Your task to perform on an android device: toggle javascript in the chrome app Image 0: 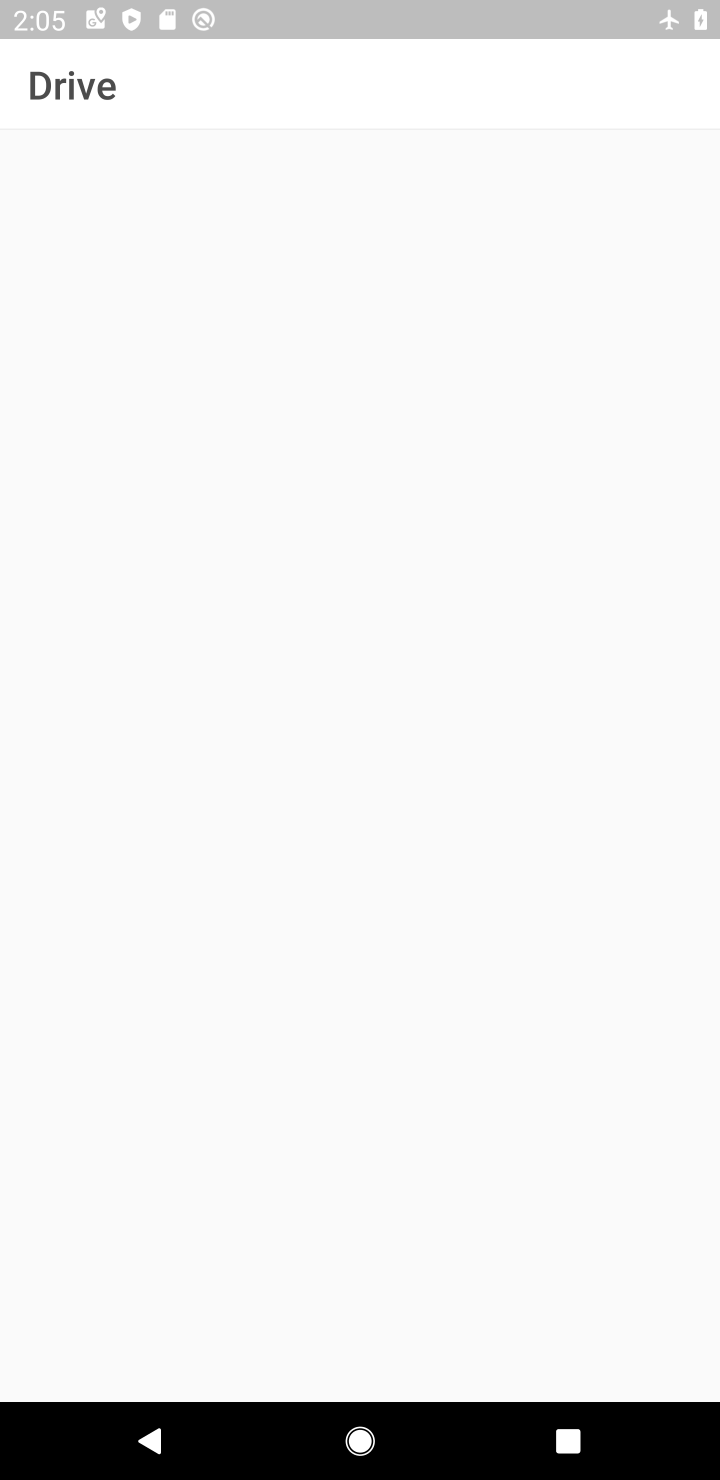
Step 0: press home button
Your task to perform on an android device: toggle javascript in the chrome app Image 1: 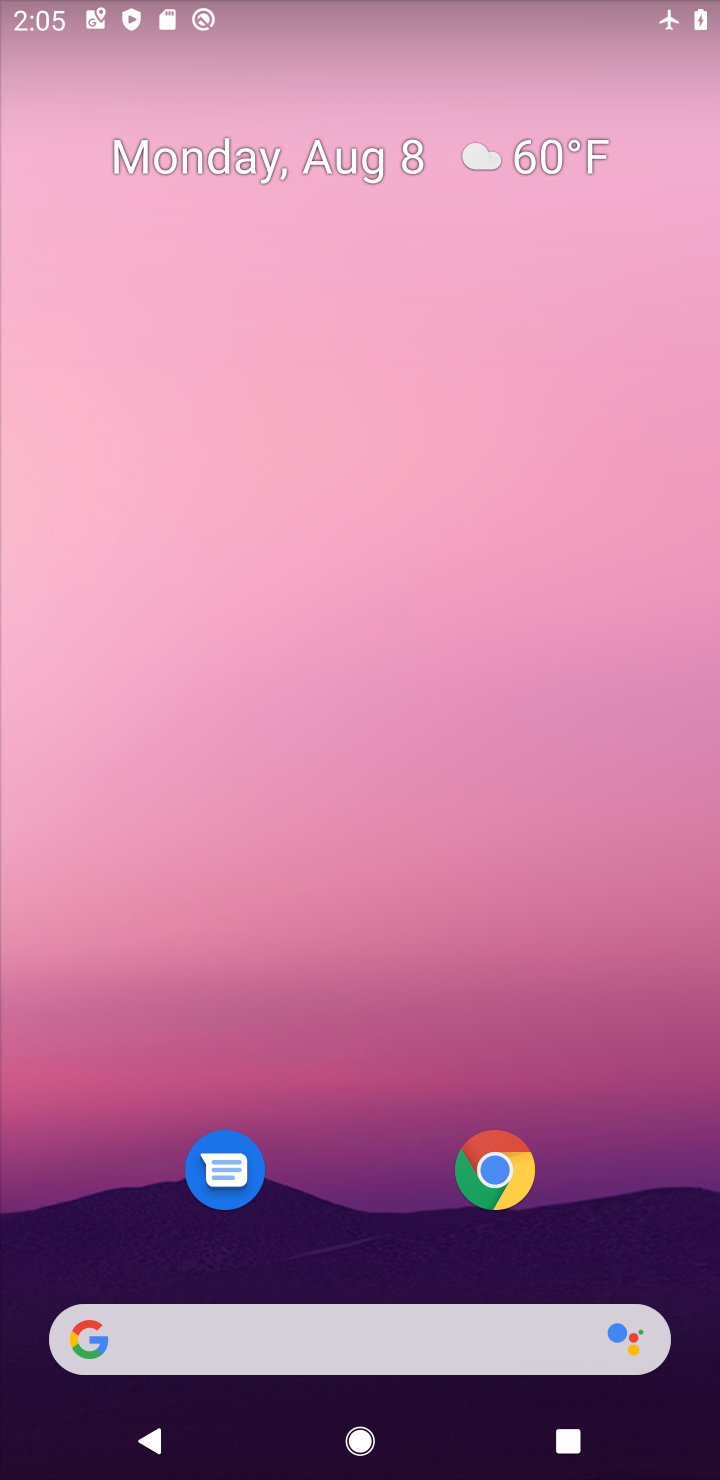
Step 1: click (511, 1148)
Your task to perform on an android device: toggle javascript in the chrome app Image 2: 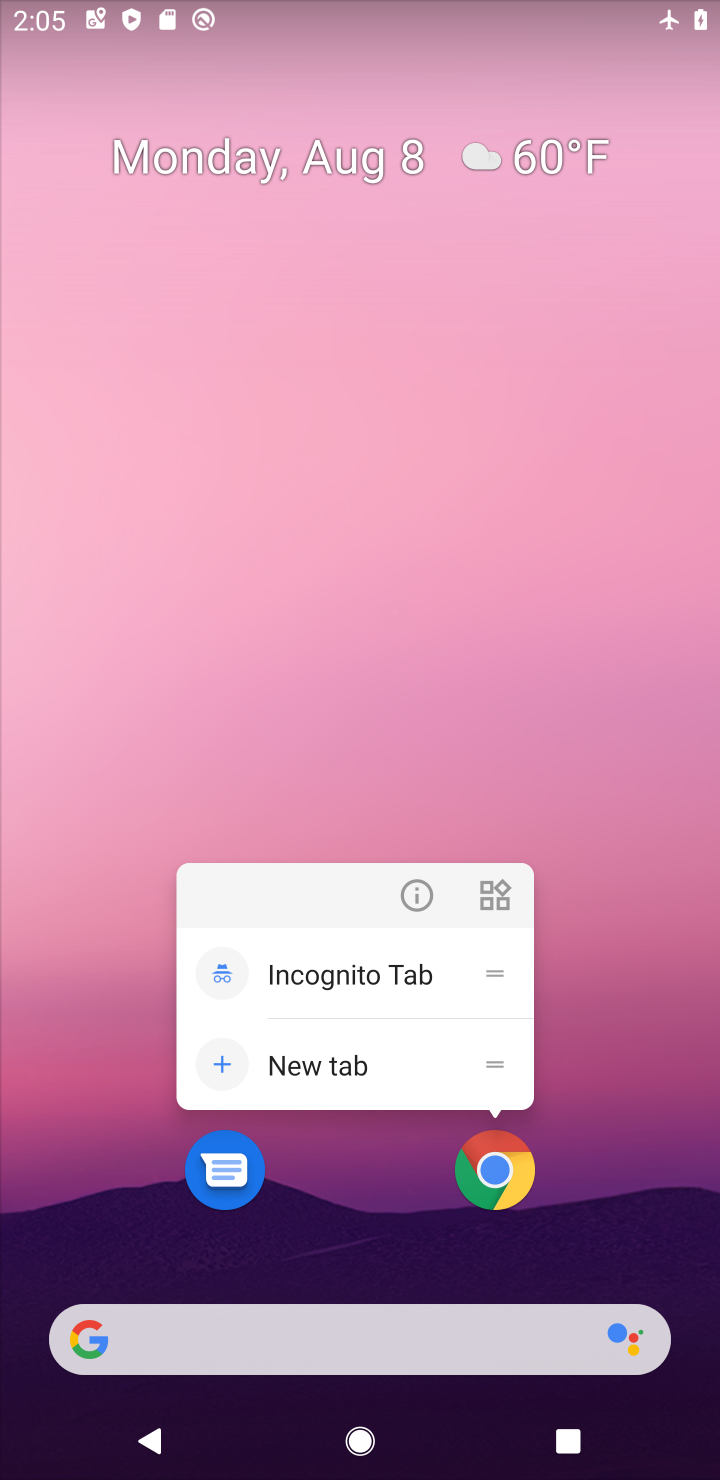
Step 2: click (506, 1156)
Your task to perform on an android device: toggle javascript in the chrome app Image 3: 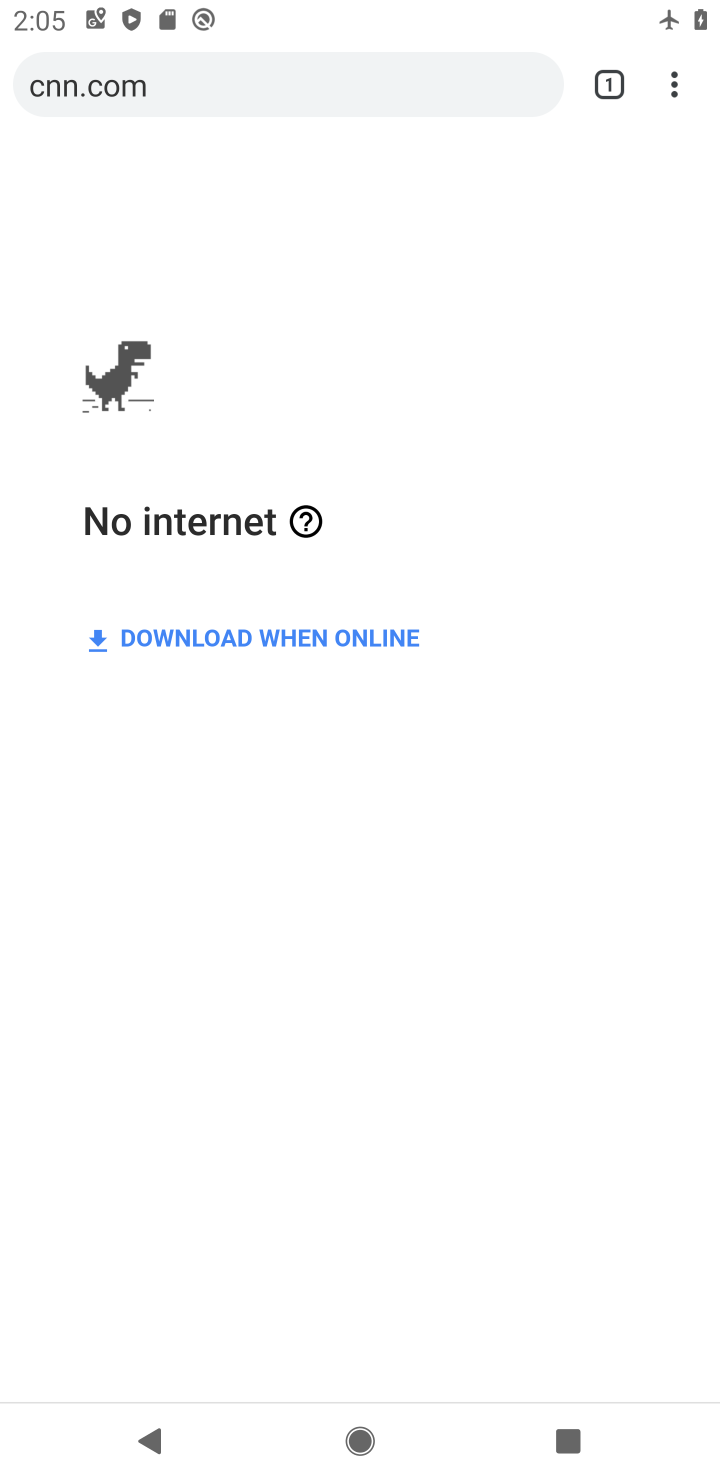
Step 3: click (669, 86)
Your task to perform on an android device: toggle javascript in the chrome app Image 4: 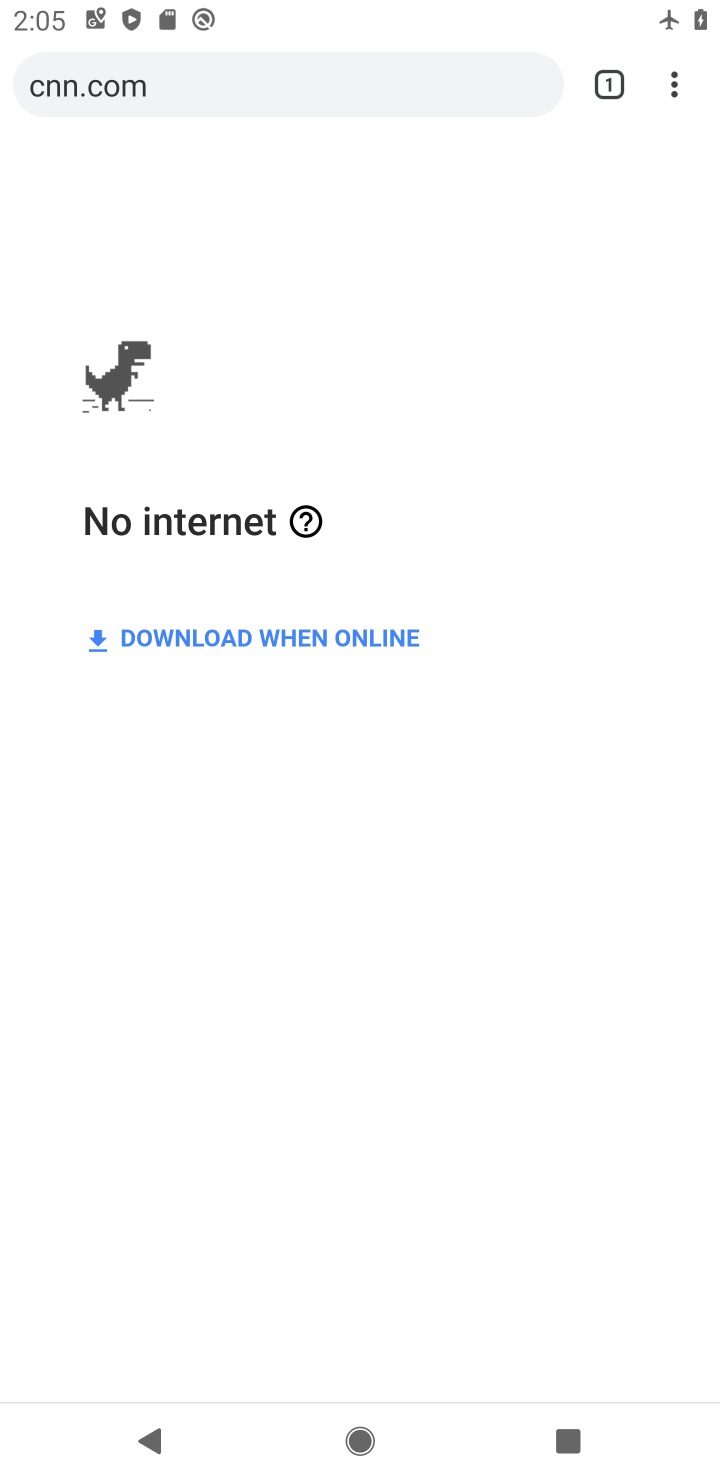
Step 4: click (680, 68)
Your task to perform on an android device: toggle javascript in the chrome app Image 5: 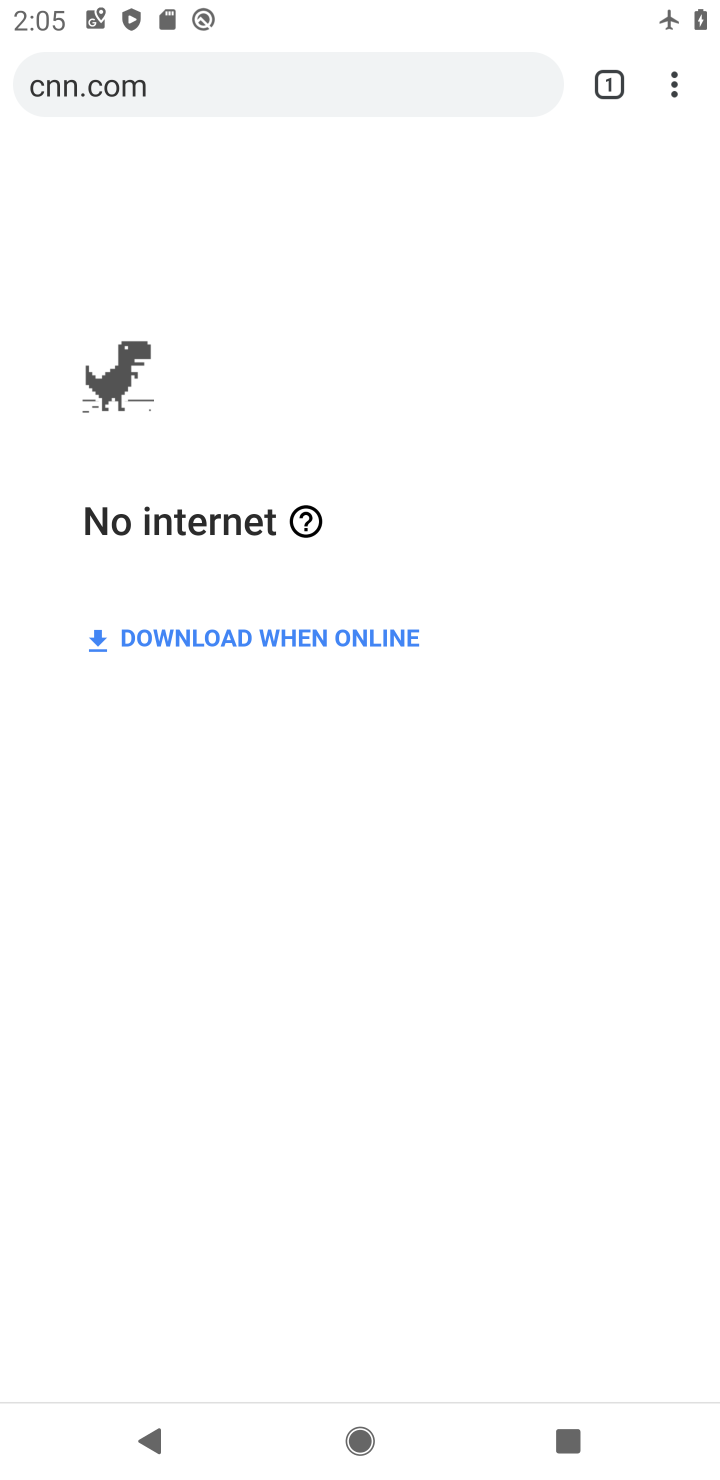
Step 5: click (673, 103)
Your task to perform on an android device: toggle javascript in the chrome app Image 6: 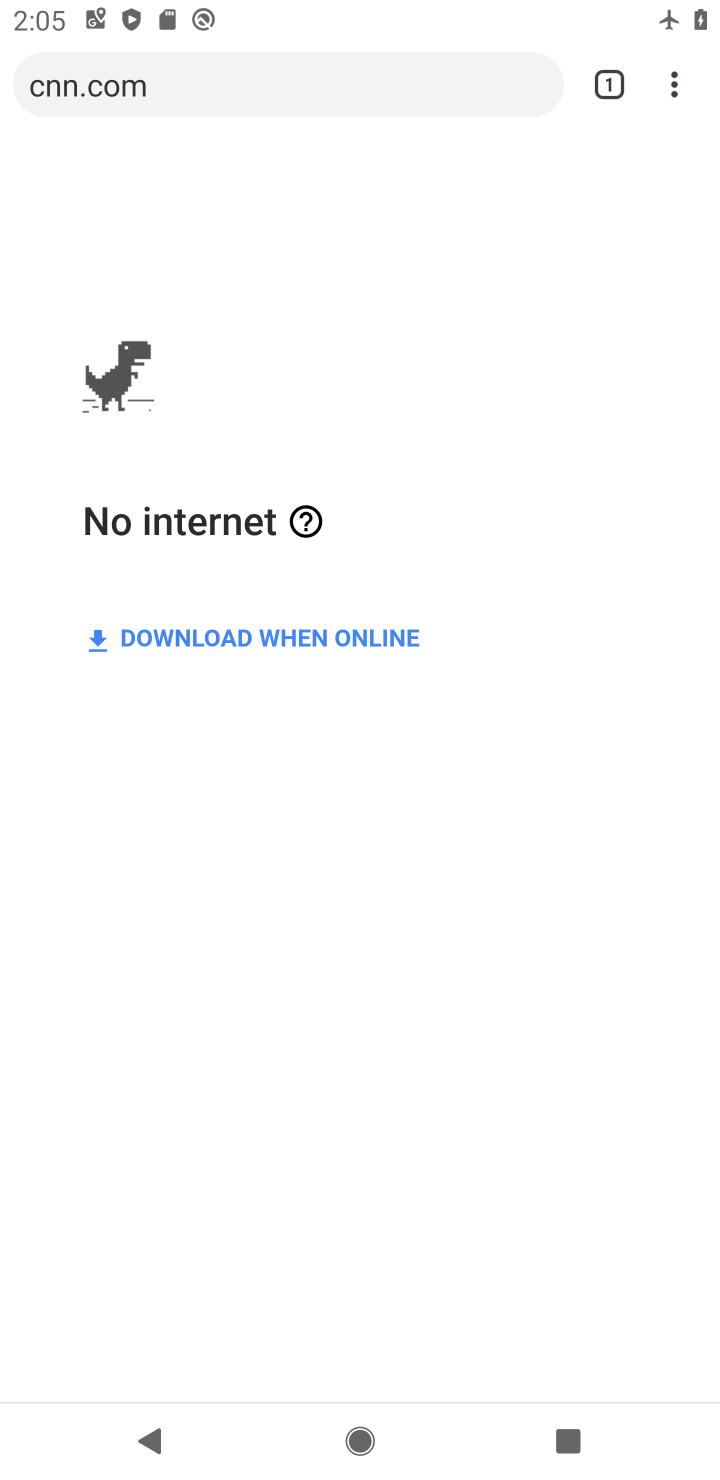
Step 6: drag from (673, 103) to (382, 961)
Your task to perform on an android device: toggle javascript in the chrome app Image 7: 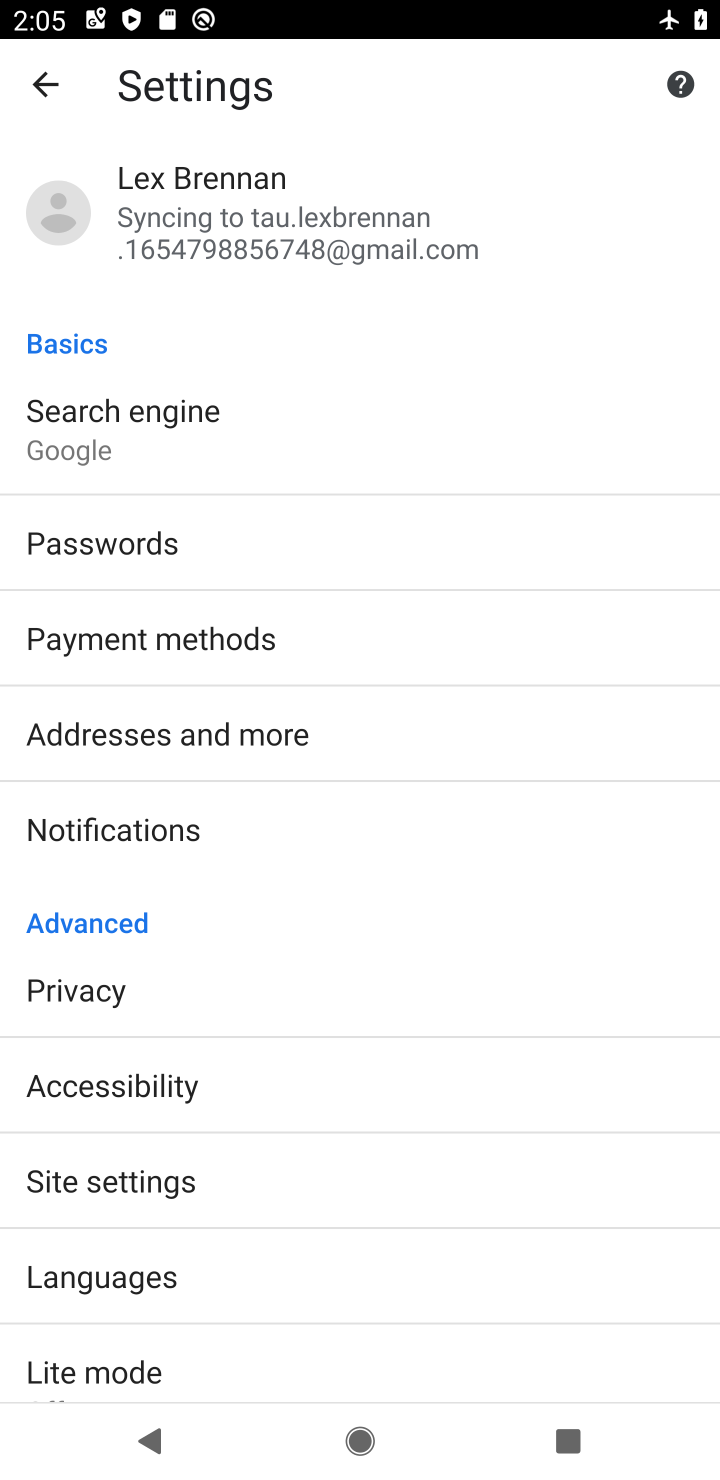
Step 7: click (140, 1188)
Your task to perform on an android device: toggle javascript in the chrome app Image 8: 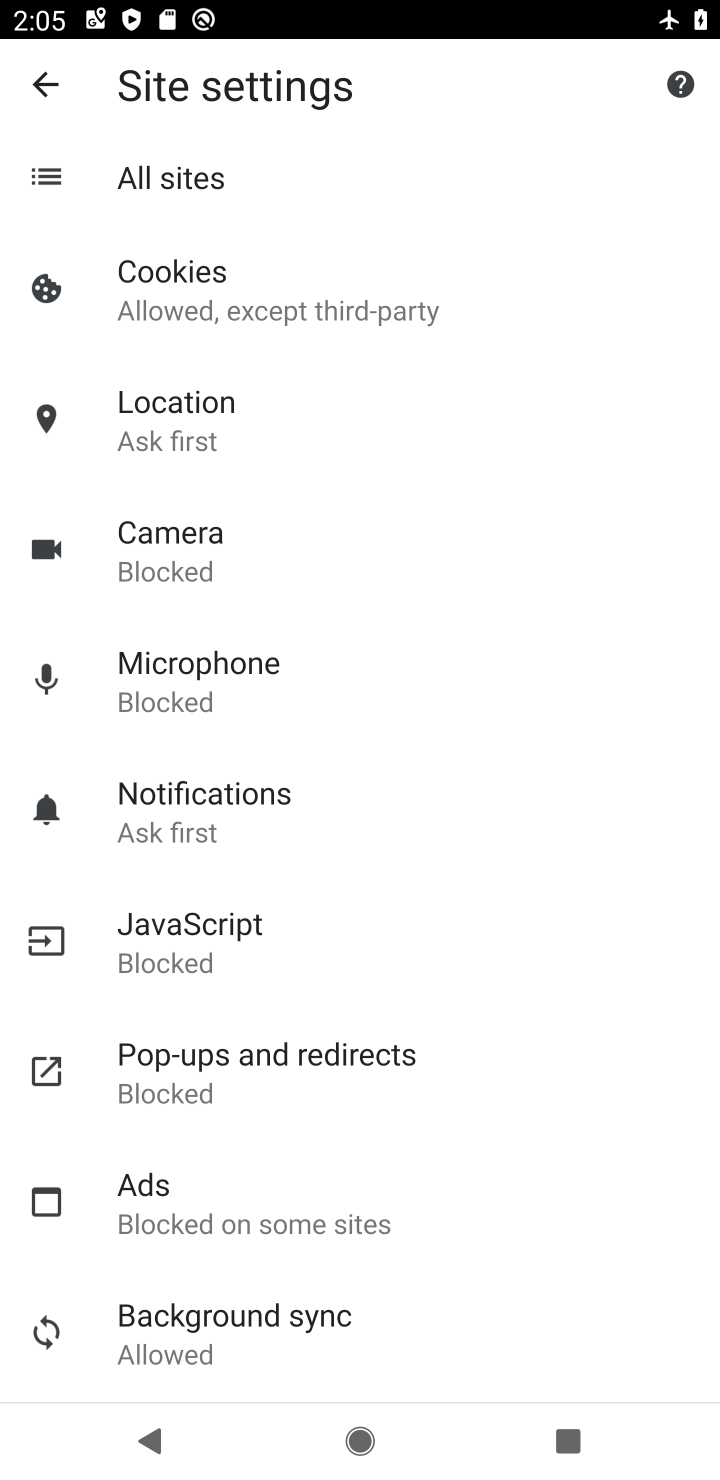
Step 8: click (256, 956)
Your task to perform on an android device: toggle javascript in the chrome app Image 9: 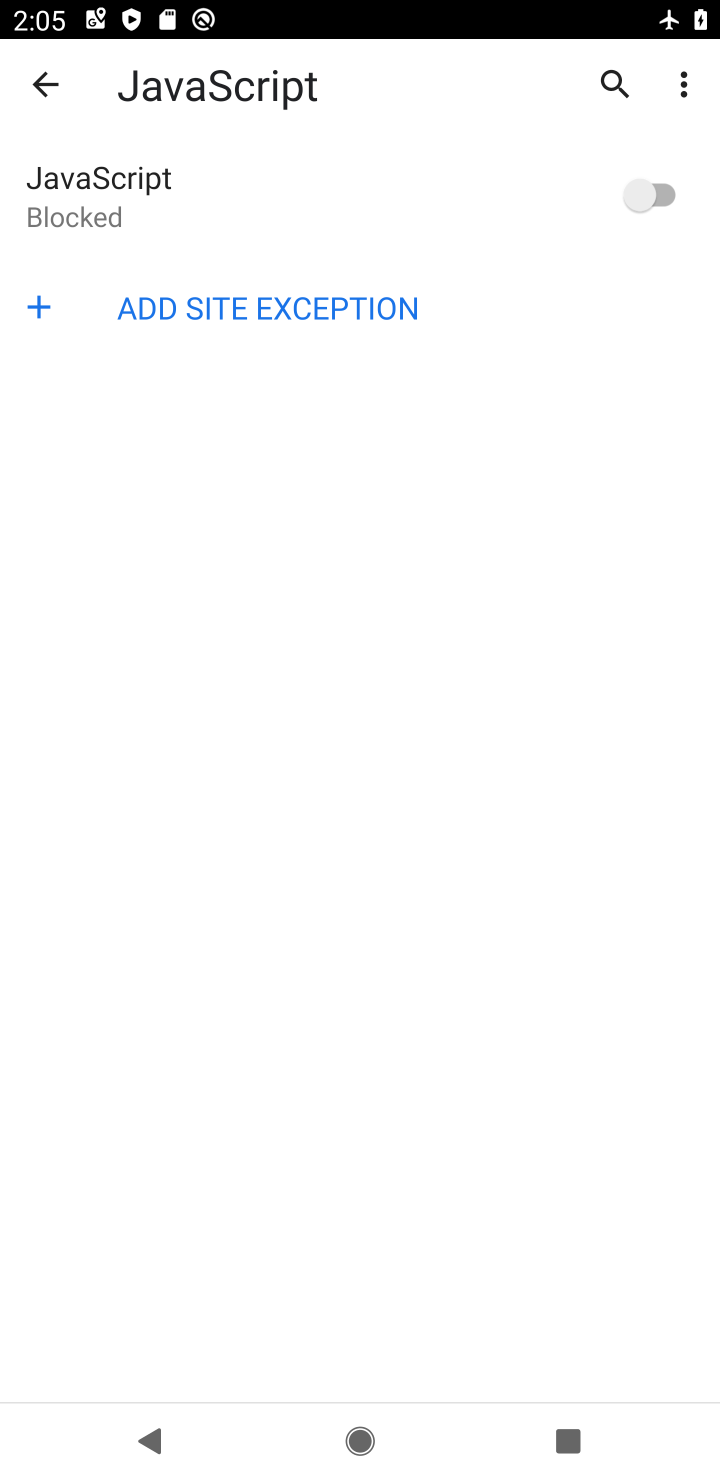
Step 9: click (666, 213)
Your task to perform on an android device: toggle javascript in the chrome app Image 10: 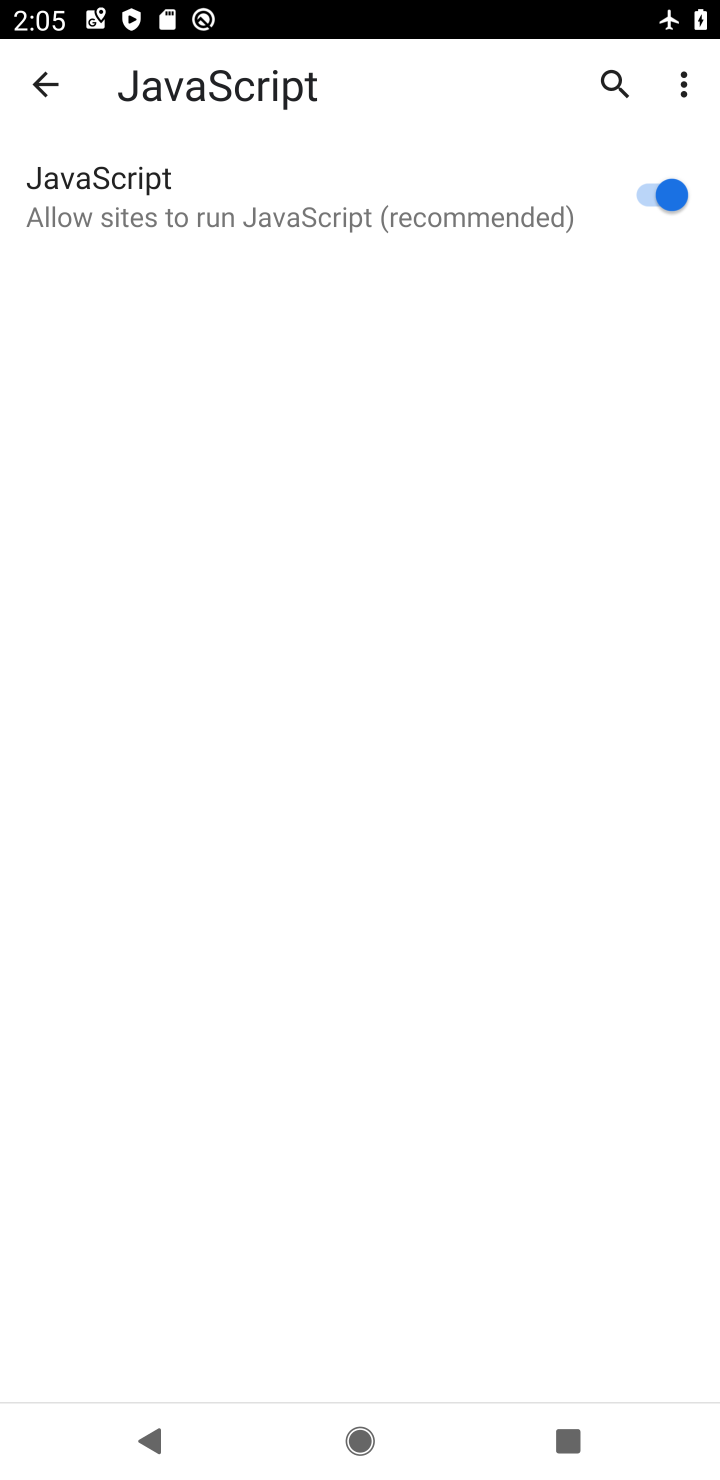
Step 10: task complete